Your task to perform on an android device: Check the news Image 0: 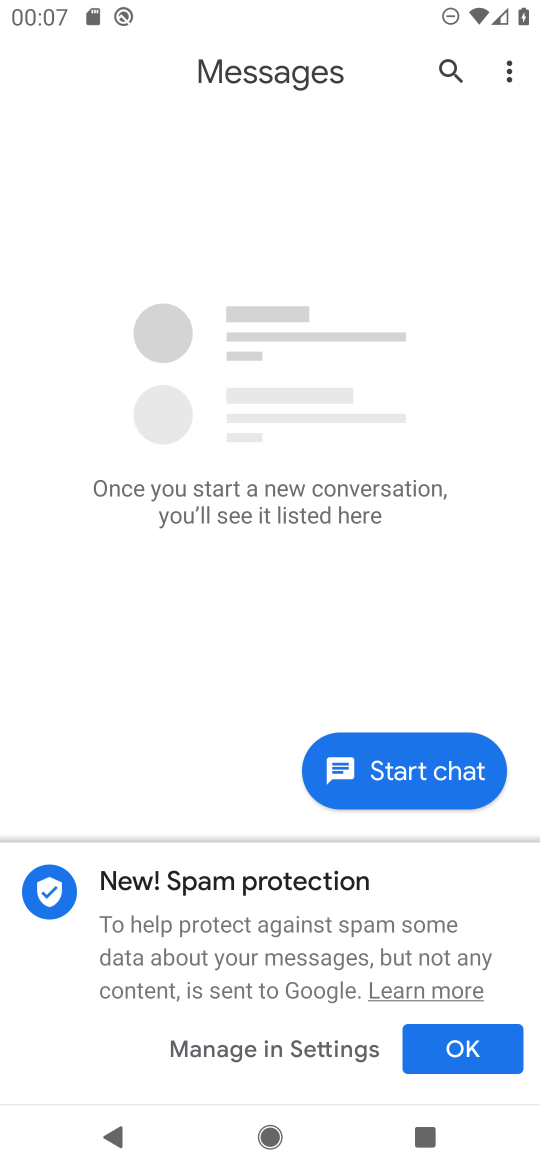
Step 0: press home button
Your task to perform on an android device: Check the news Image 1: 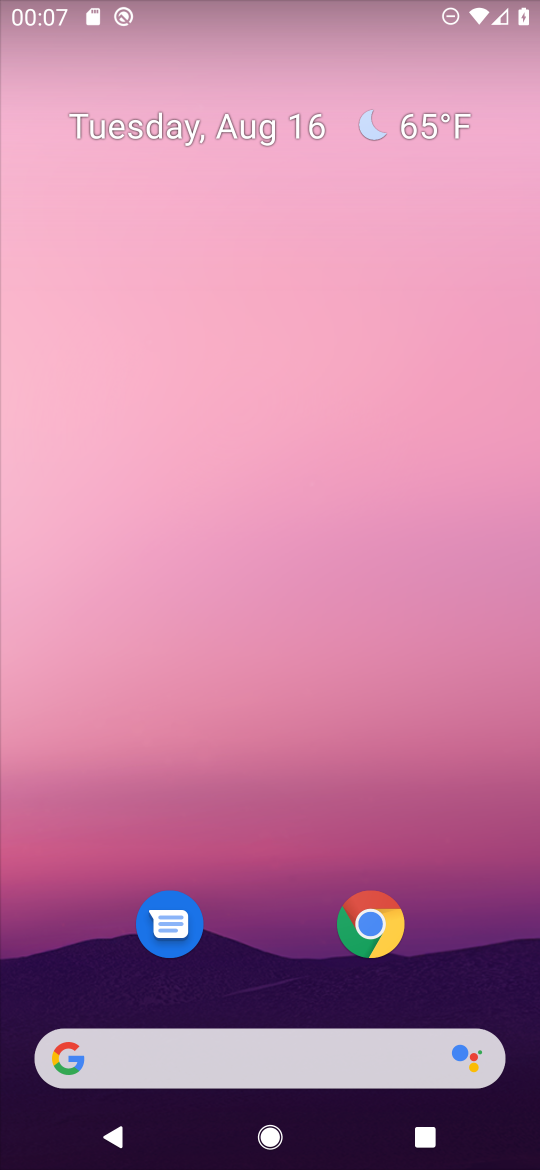
Step 1: drag from (13, 457) to (459, 528)
Your task to perform on an android device: Check the news Image 2: 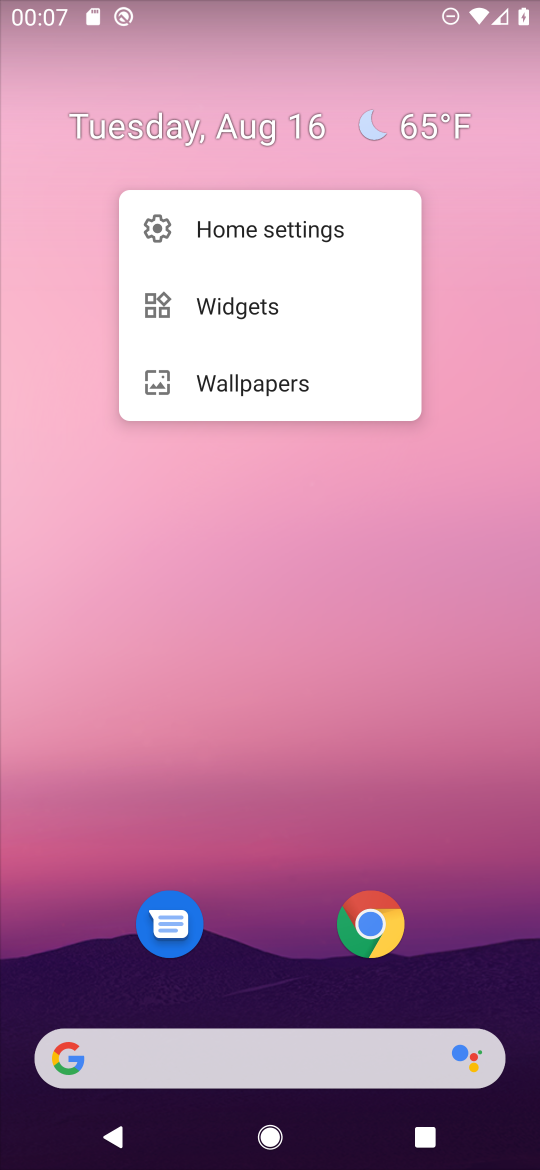
Step 2: click (60, 575)
Your task to perform on an android device: Check the news Image 3: 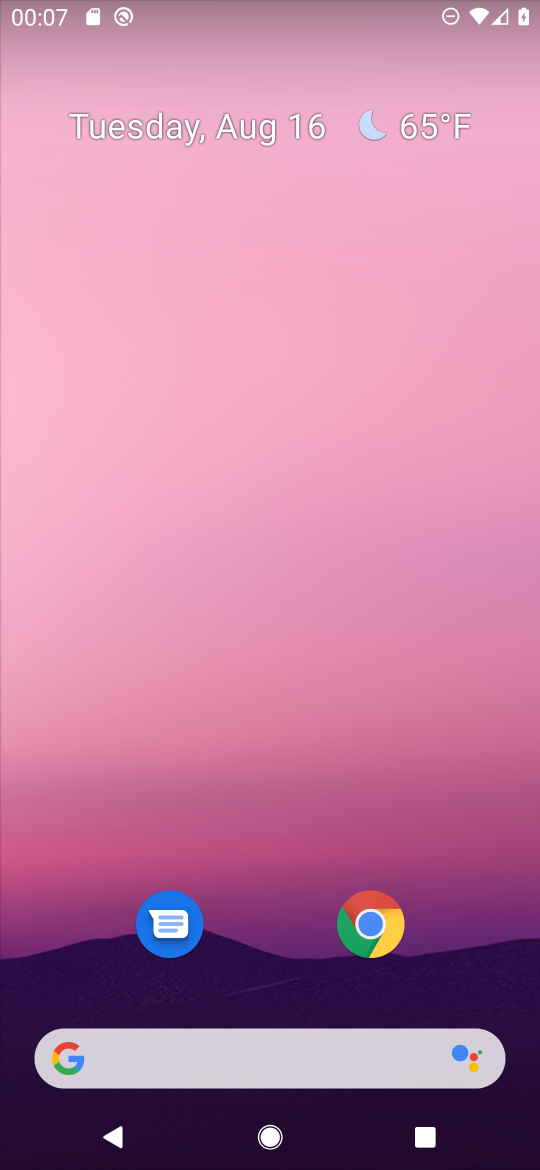
Step 3: task complete